Your task to perform on an android device: Go to Amazon Image 0: 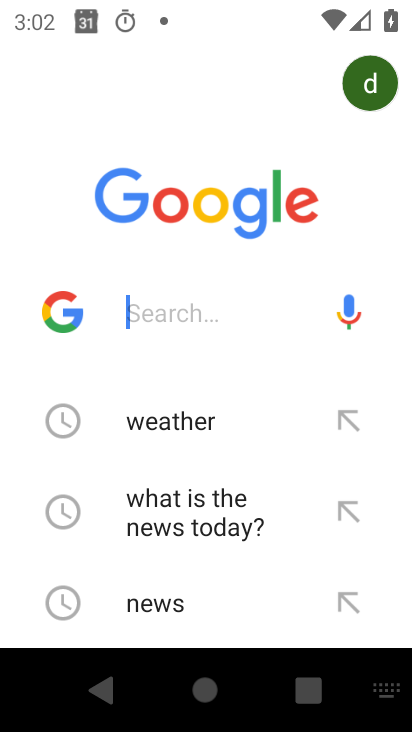
Step 0: press home button
Your task to perform on an android device: Go to Amazon Image 1: 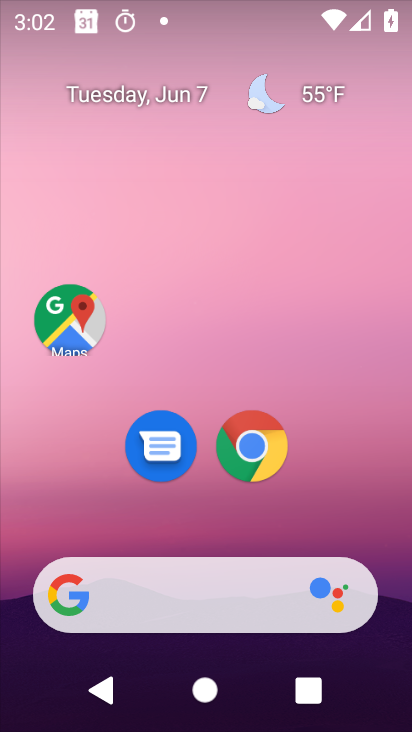
Step 1: click (244, 443)
Your task to perform on an android device: Go to Amazon Image 2: 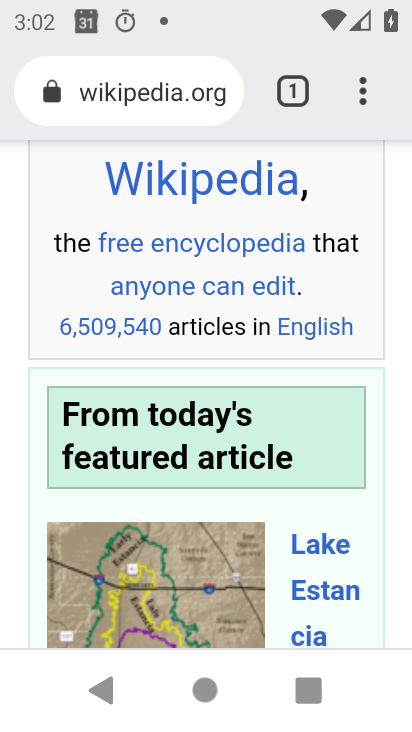
Step 2: click (159, 92)
Your task to perform on an android device: Go to Amazon Image 3: 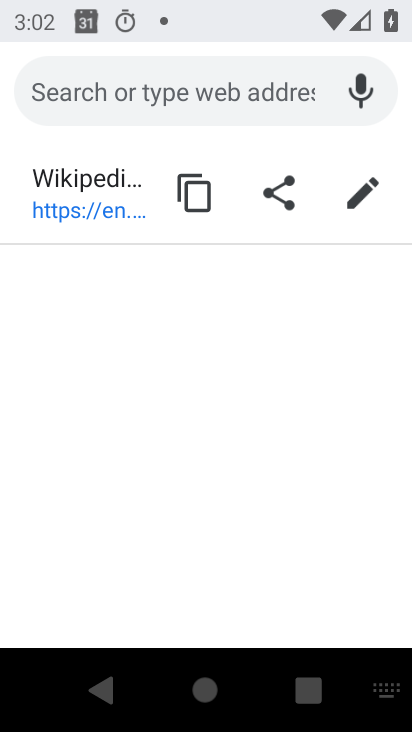
Step 3: type "Amazon"
Your task to perform on an android device: Go to Amazon Image 4: 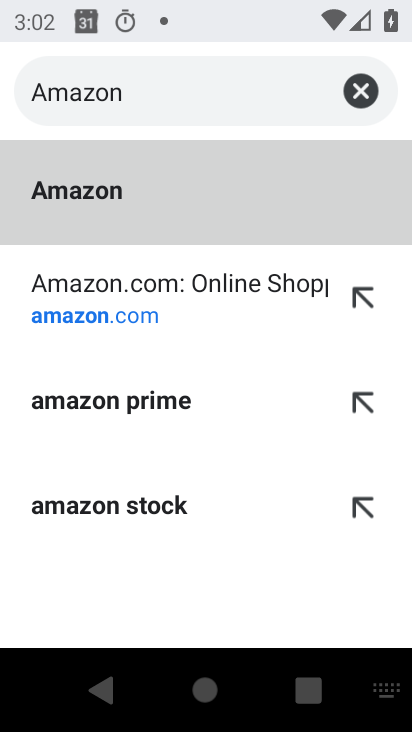
Step 4: click (114, 300)
Your task to perform on an android device: Go to Amazon Image 5: 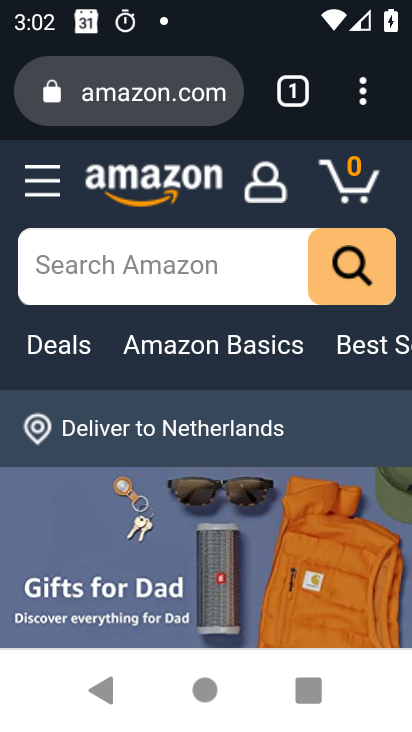
Step 5: task complete